Your task to perform on an android device: turn on sleep mode Image 0: 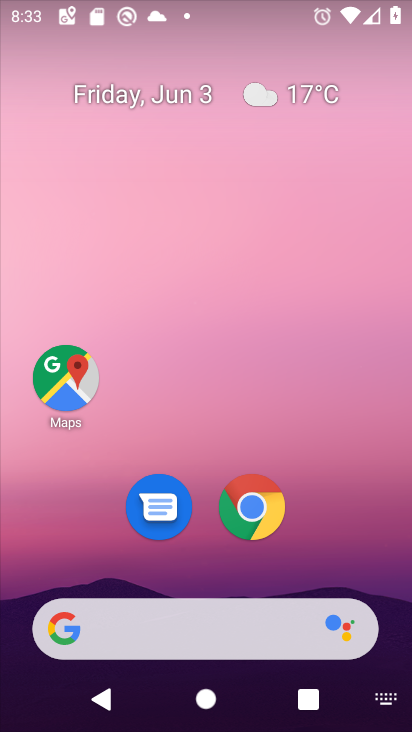
Step 0: drag from (269, 140) to (240, 19)
Your task to perform on an android device: turn on sleep mode Image 1: 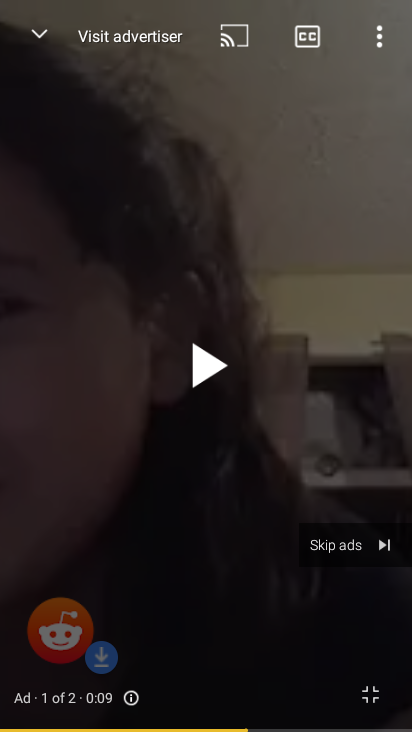
Step 1: press home button
Your task to perform on an android device: turn on sleep mode Image 2: 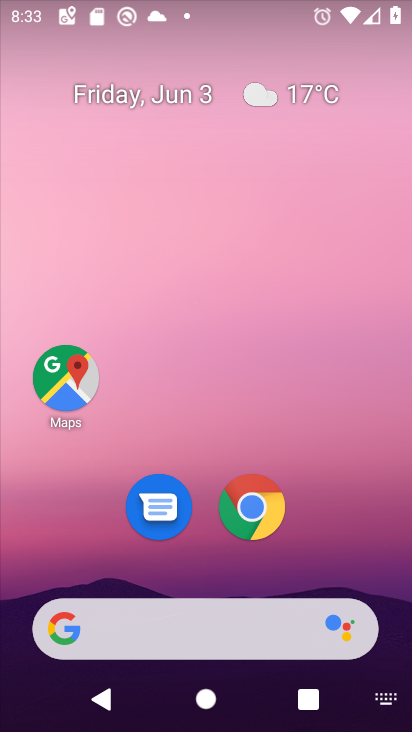
Step 2: drag from (389, 497) to (149, 0)
Your task to perform on an android device: turn on sleep mode Image 3: 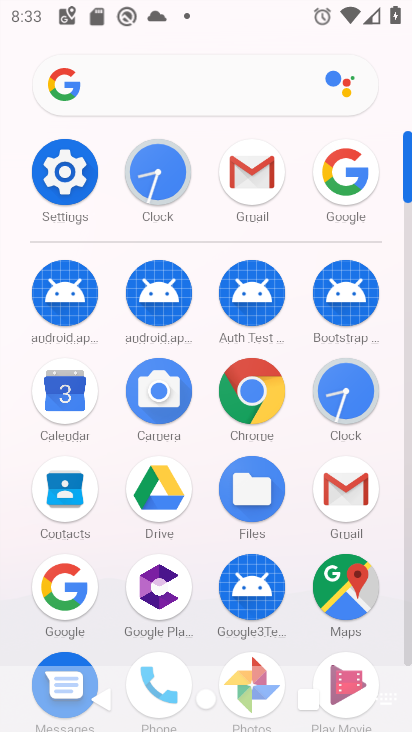
Step 3: click (64, 180)
Your task to perform on an android device: turn on sleep mode Image 4: 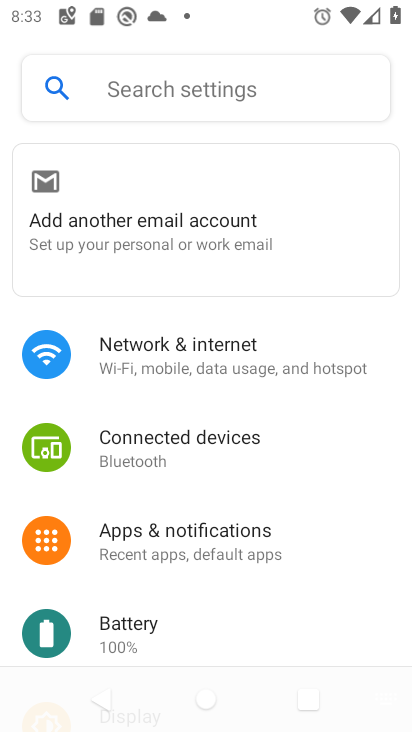
Step 4: drag from (311, 525) to (259, 58)
Your task to perform on an android device: turn on sleep mode Image 5: 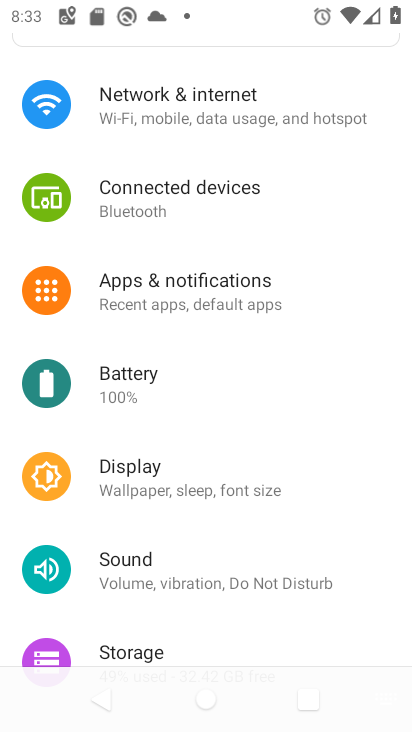
Step 5: click (207, 480)
Your task to perform on an android device: turn on sleep mode Image 6: 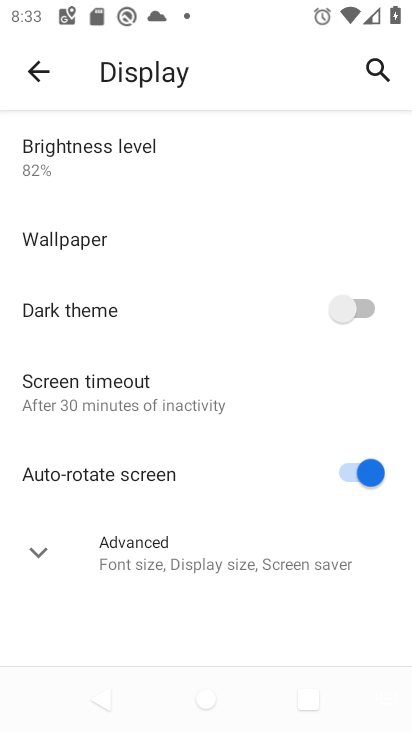
Step 6: task complete